Your task to perform on an android device: Open the web browser Image 0: 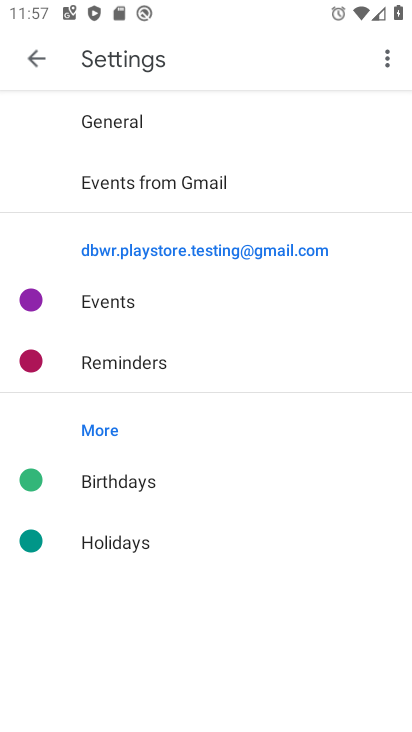
Step 0: press home button
Your task to perform on an android device: Open the web browser Image 1: 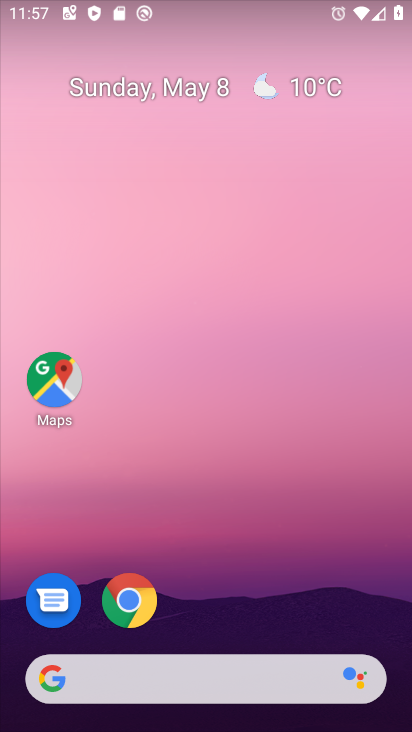
Step 1: click (117, 604)
Your task to perform on an android device: Open the web browser Image 2: 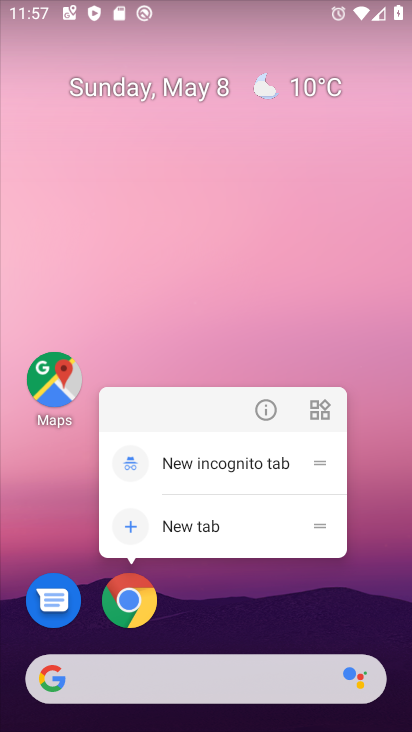
Step 2: click (123, 593)
Your task to perform on an android device: Open the web browser Image 3: 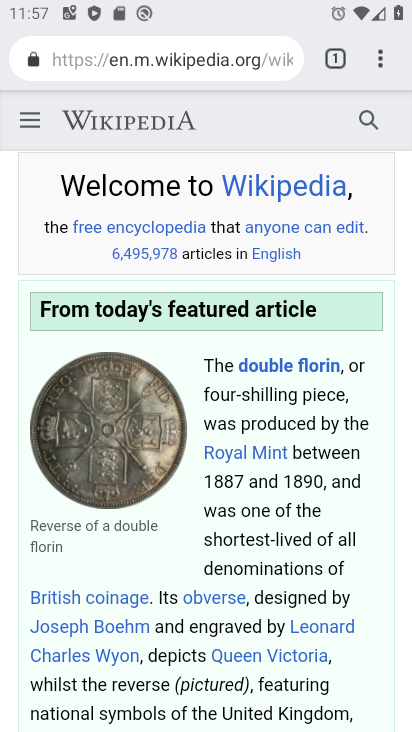
Step 3: click (185, 70)
Your task to perform on an android device: Open the web browser Image 4: 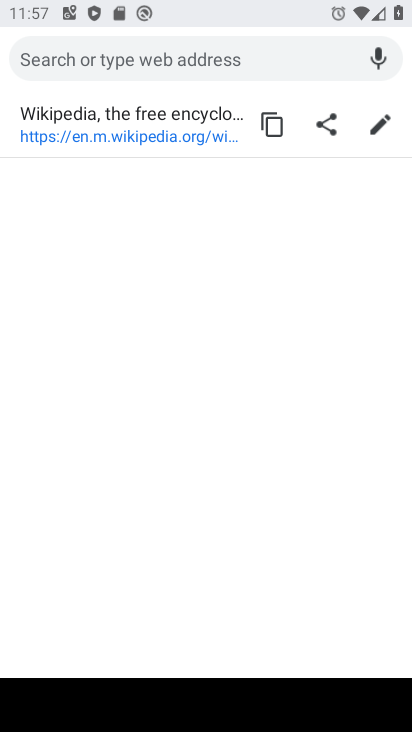
Step 4: task complete